Your task to perform on an android device: Open Youtube and go to "Your channel" Image 0: 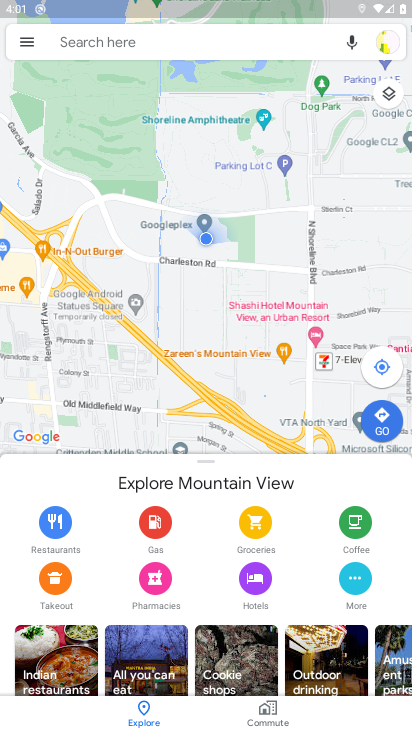
Step 0: task complete